Your task to perform on an android device: Open notification settings Image 0: 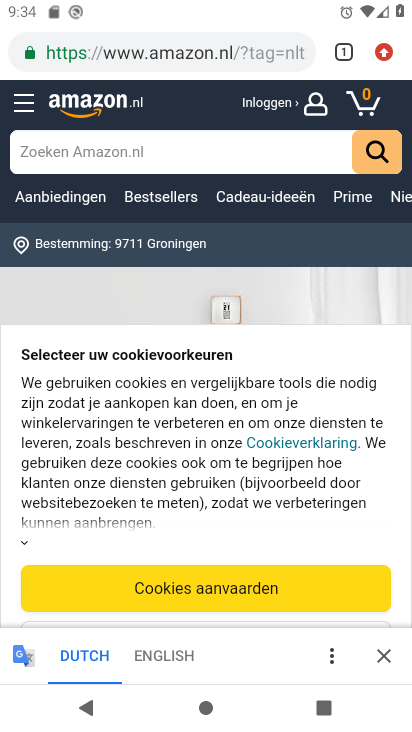
Step 0: press home button
Your task to perform on an android device: Open notification settings Image 1: 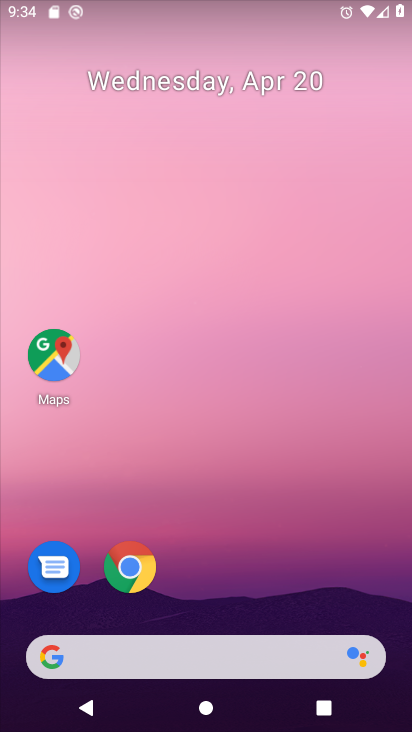
Step 1: drag from (317, 534) to (335, 228)
Your task to perform on an android device: Open notification settings Image 2: 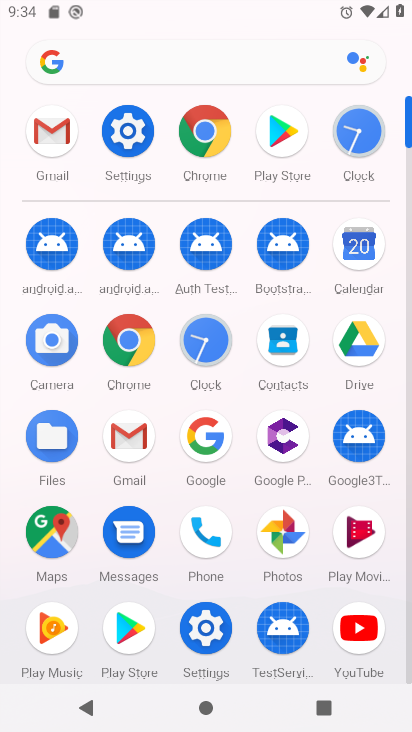
Step 2: click (129, 131)
Your task to perform on an android device: Open notification settings Image 3: 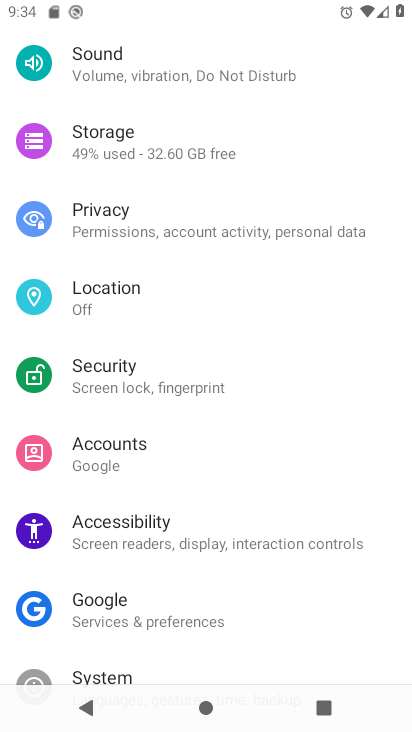
Step 3: drag from (359, 380) to (371, 240)
Your task to perform on an android device: Open notification settings Image 4: 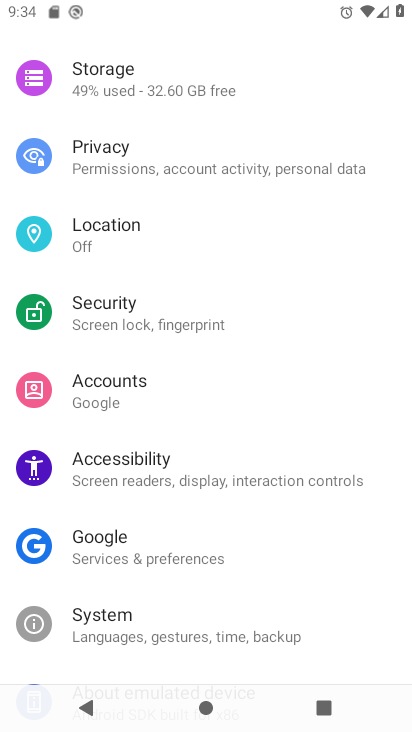
Step 4: drag from (340, 504) to (349, 262)
Your task to perform on an android device: Open notification settings Image 5: 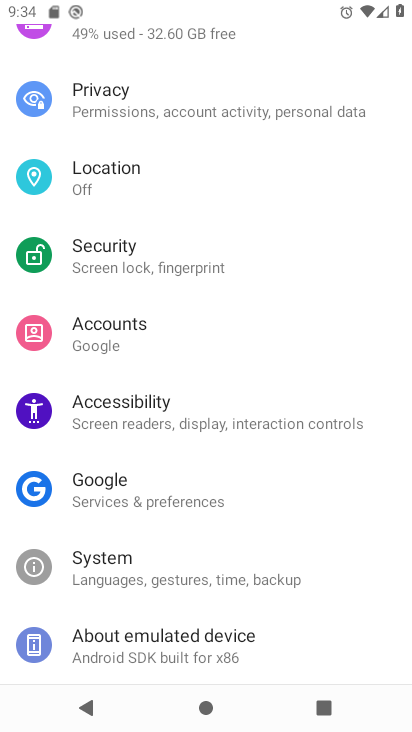
Step 5: drag from (358, 343) to (355, 521)
Your task to perform on an android device: Open notification settings Image 6: 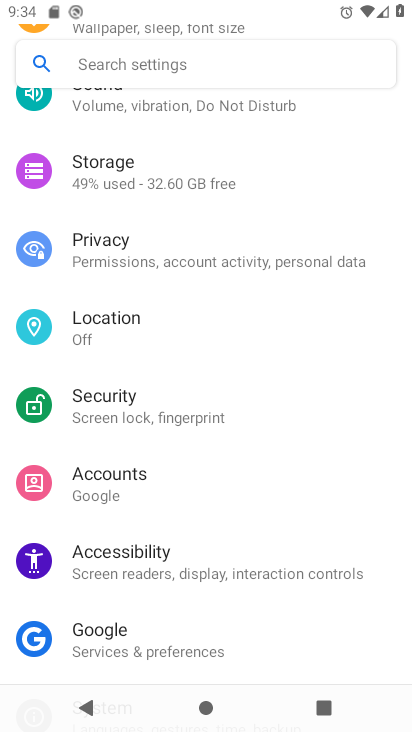
Step 6: drag from (363, 311) to (361, 497)
Your task to perform on an android device: Open notification settings Image 7: 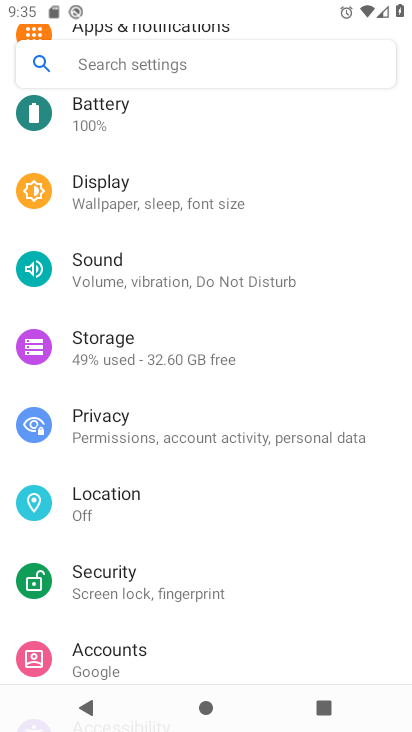
Step 7: drag from (359, 267) to (358, 520)
Your task to perform on an android device: Open notification settings Image 8: 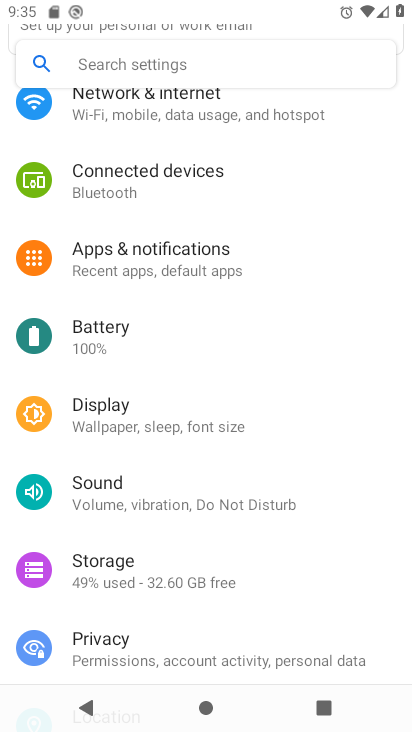
Step 8: drag from (347, 247) to (355, 449)
Your task to perform on an android device: Open notification settings Image 9: 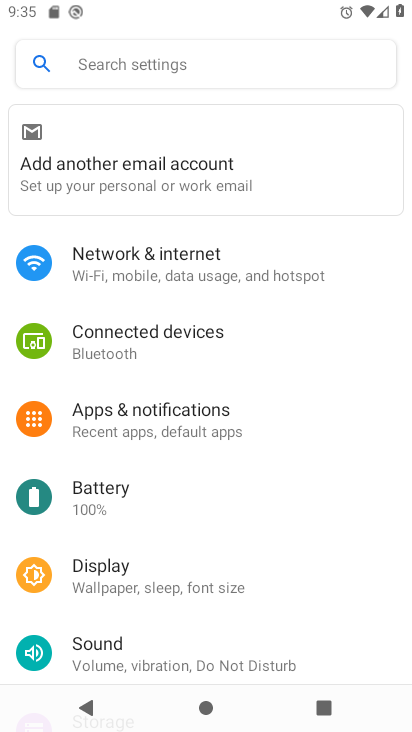
Step 9: click (193, 427)
Your task to perform on an android device: Open notification settings Image 10: 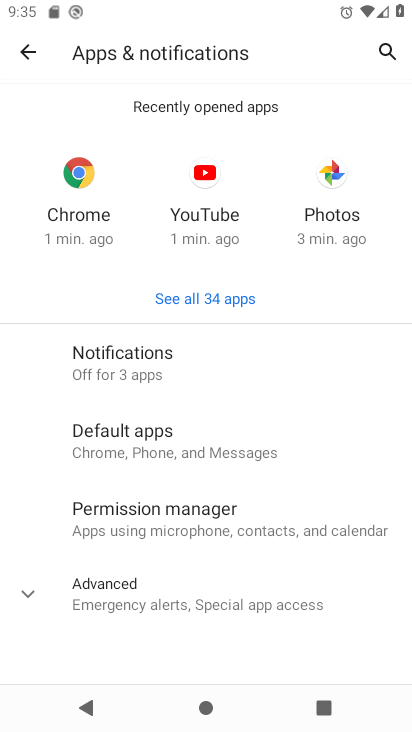
Step 10: click (140, 355)
Your task to perform on an android device: Open notification settings Image 11: 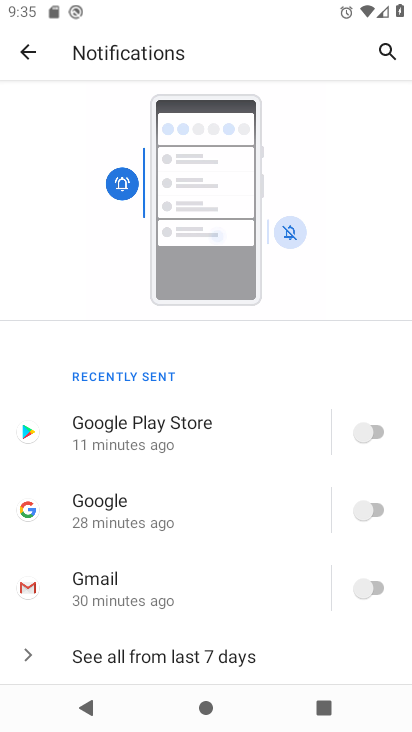
Step 11: task complete